Your task to perform on an android device: Toggle the flashlight Image 0: 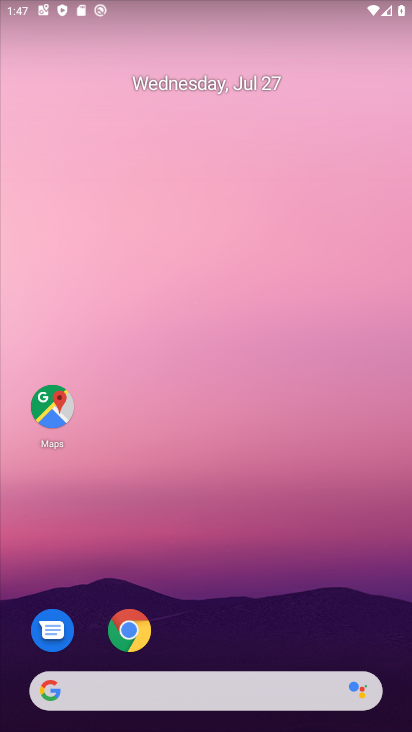
Step 0: drag from (225, 16) to (232, 231)
Your task to perform on an android device: Toggle the flashlight Image 1: 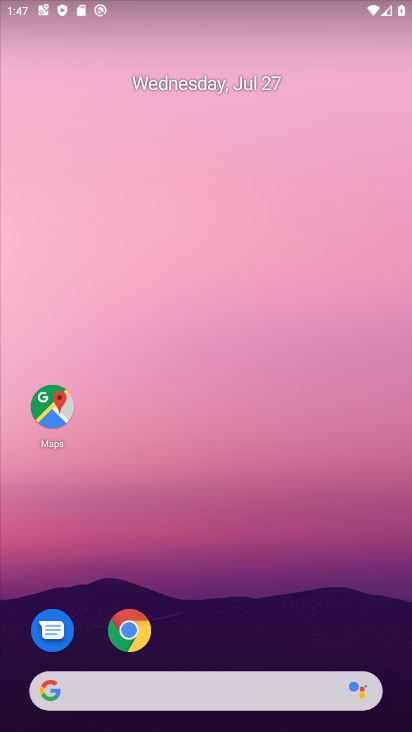
Step 1: drag from (219, 9) to (233, 328)
Your task to perform on an android device: Toggle the flashlight Image 2: 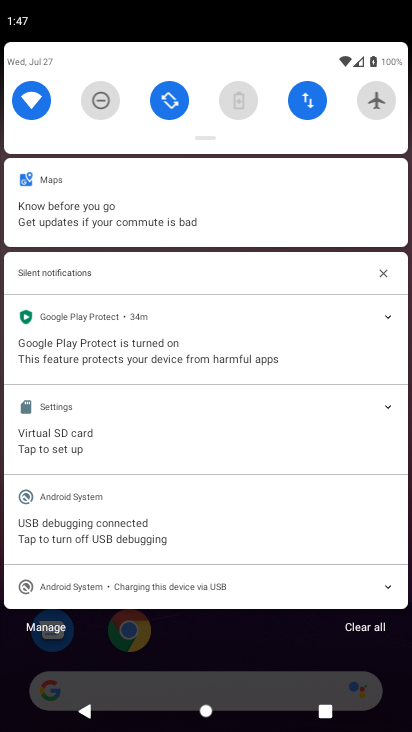
Step 2: drag from (209, 133) to (206, 368)
Your task to perform on an android device: Toggle the flashlight Image 3: 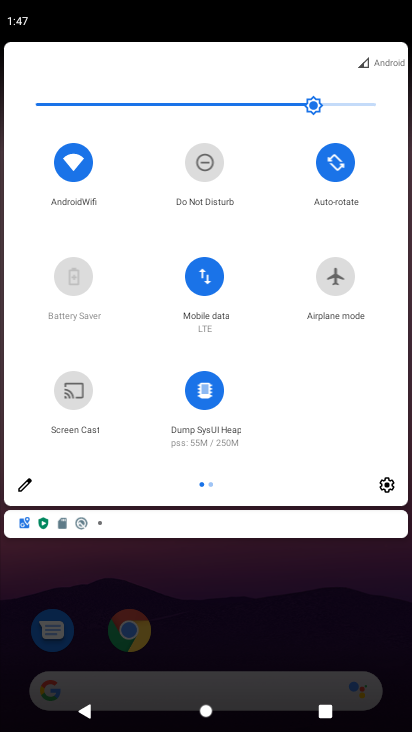
Step 3: click (21, 484)
Your task to perform on an android device: Toggle the flashlight Image 4: 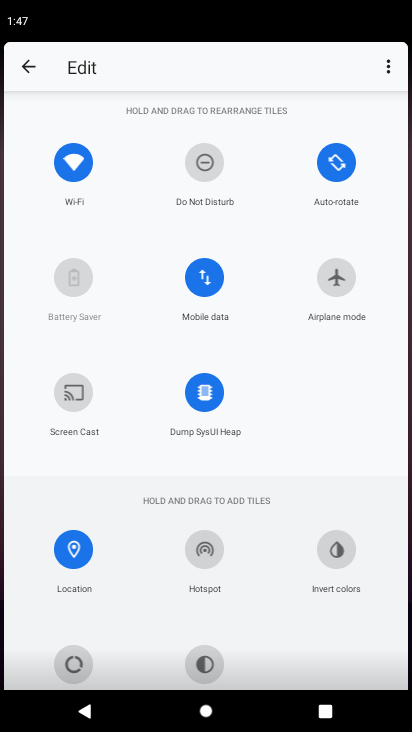
Step 4: task complete